Your task to perform on an android device: Open maps Image 0: 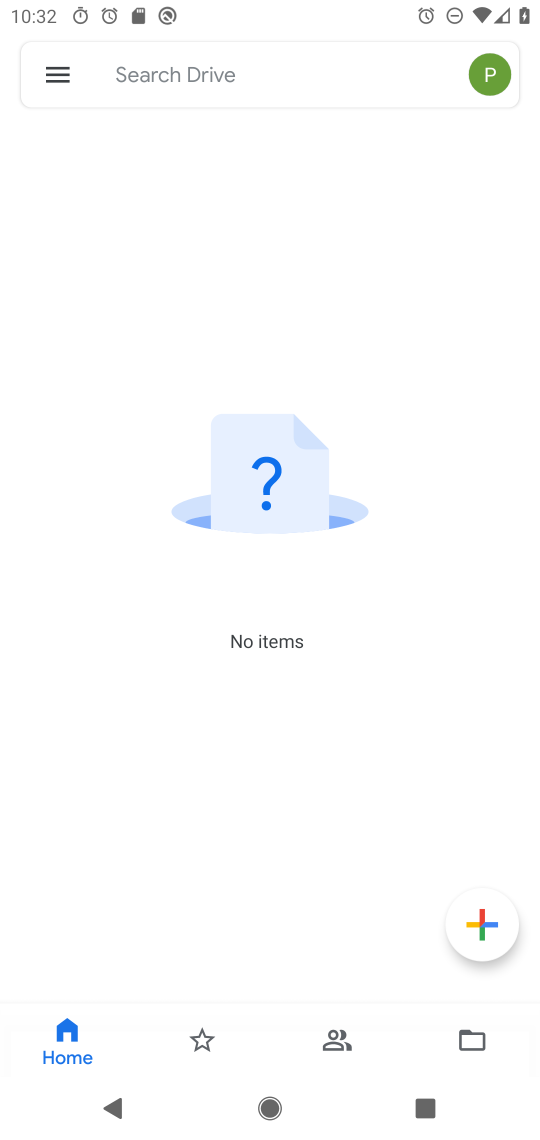
Step 0: press home button
Your task to perform on an android device: Open maps Image 1: 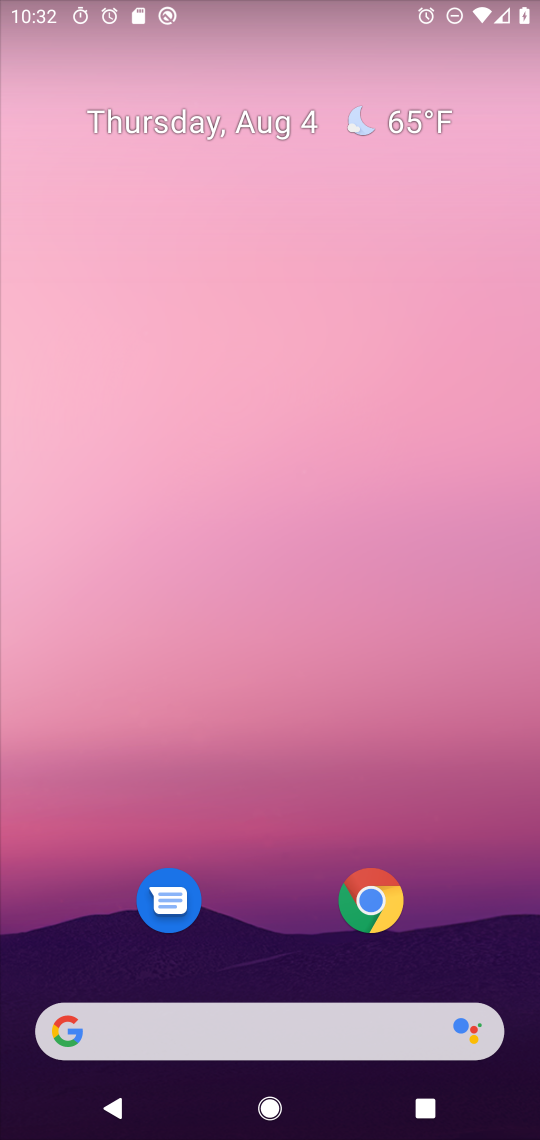
Step 1: drag from (223, 1029) to (186, 57)
Your task to perform on an android device: Open maps Image 2: 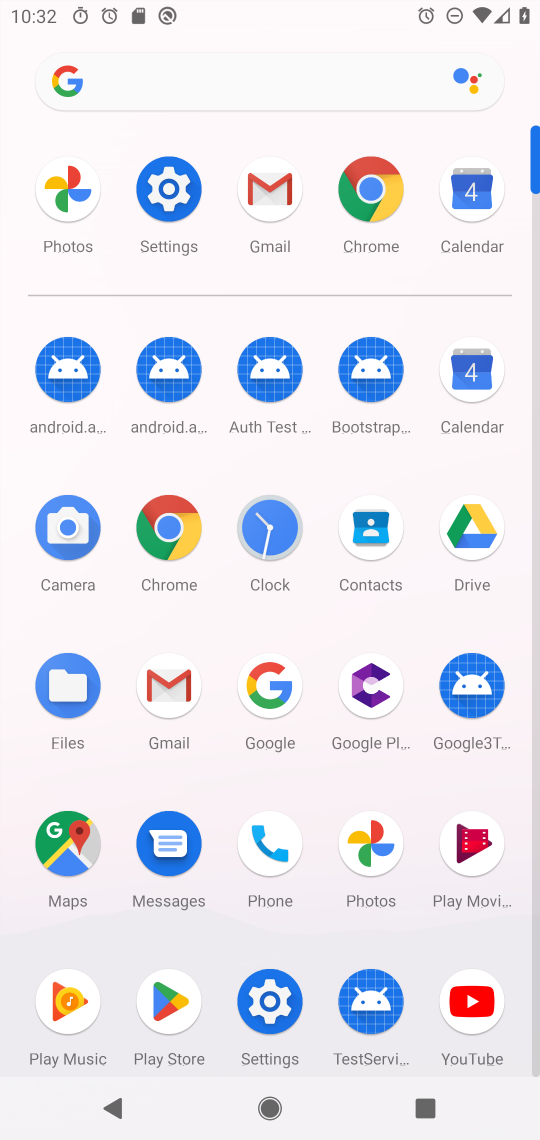
Step 2: click (66, 848)
Your task to perform on an android device: Open maps Image 3: 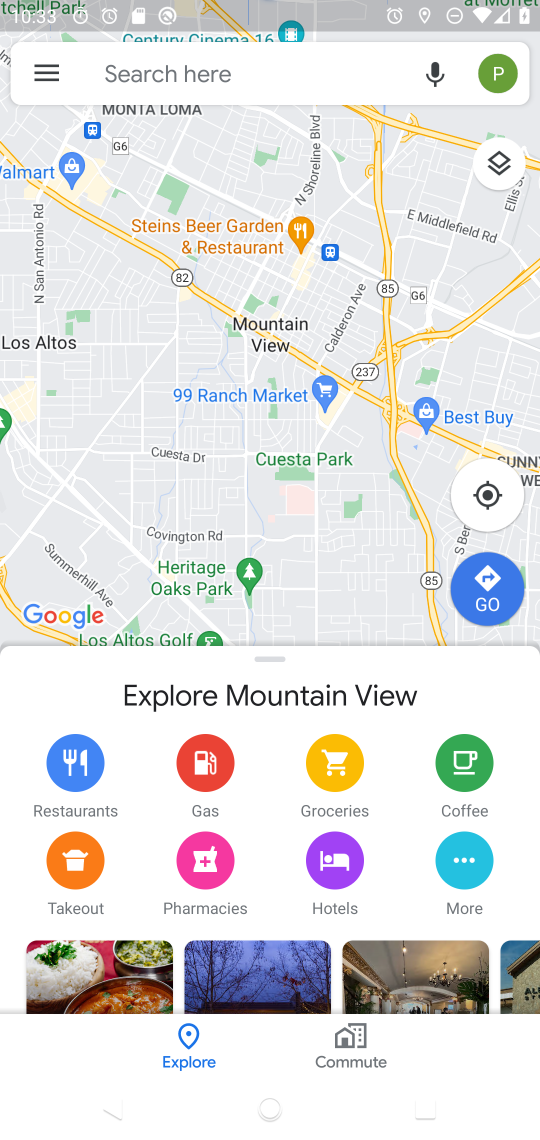
Step 3: task complete